Your task to perform on an android device: Turn on the flashlight Image 0: 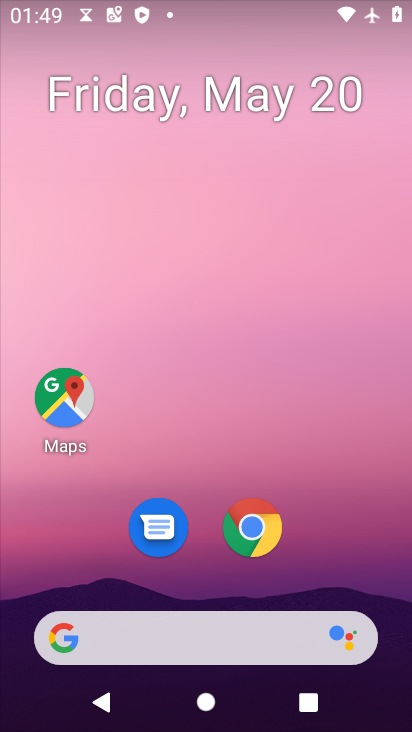
Step 0: press home button
Your task to perform on an android device: Turn on the flashlight Image 1: 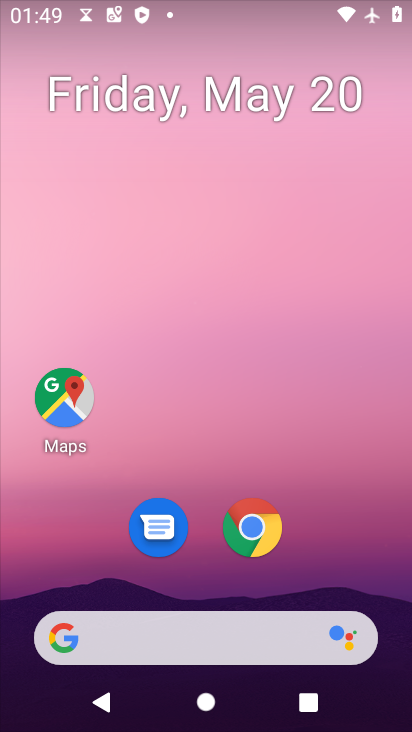
Step 1: task complete